Your task to perform on an android device: add a contact in the contacts app Image 0: 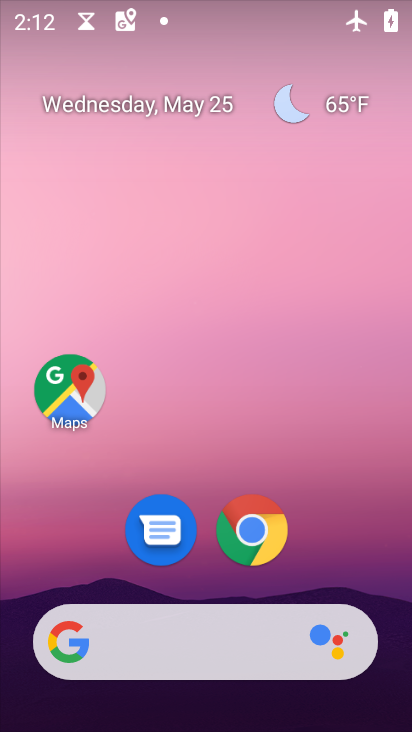
Step 0: drag from (291, 562) to (295, 248)
Your task to perform on an android device: add a contact in the contacts app Image 1: 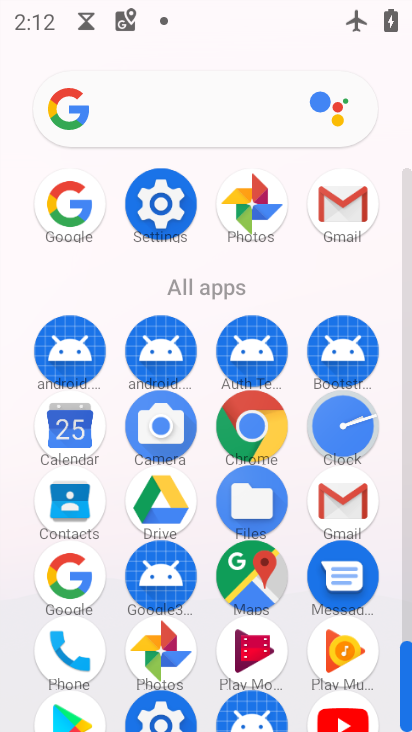
Step 1: click (73, 648)
Your task to perform on an android device: add a contact in the contacts app Image 2: 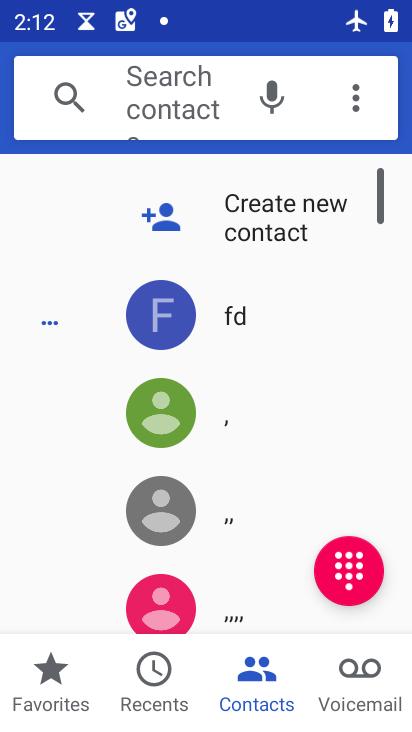
Step 2: click (230, 194)
Your task to perform on an android device: add a contact in the contacts app Image 3: 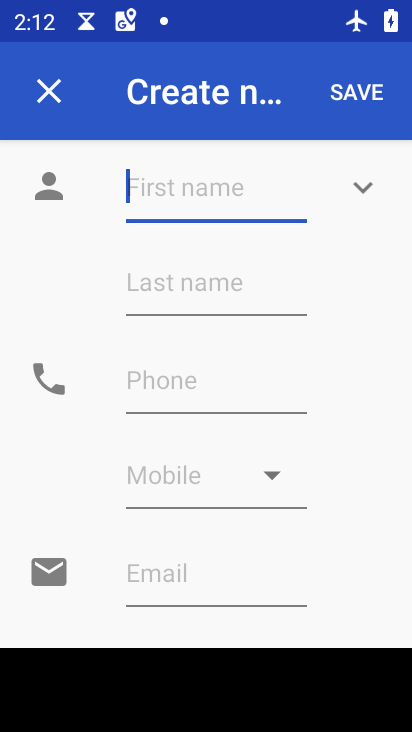
Step 3: click (200, 210)
Your task to perform on an android device: add a contact in the contacts app Image 4: 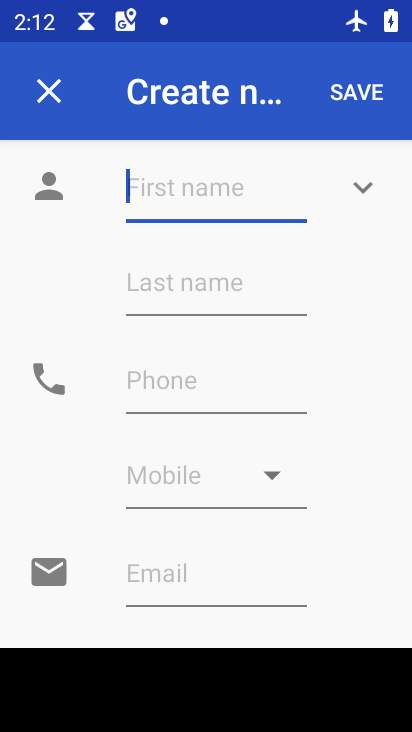
Step 4: type "kakakakakka"
Your task to perform on an android device: add a contact in the contacts app Image 5: 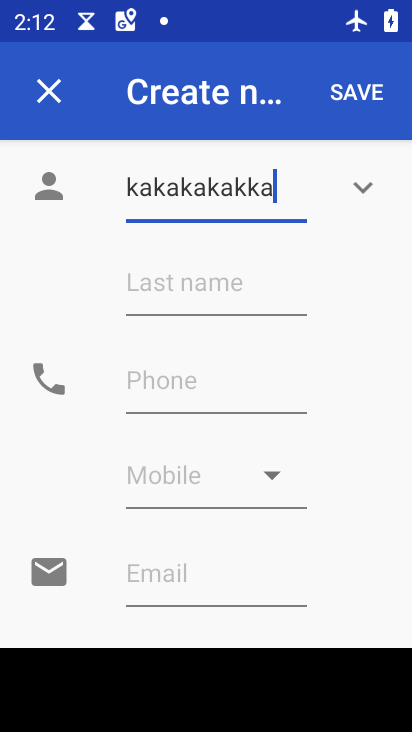
Step 5: click (227, 365)
Your task to perform on an android device: add a contact in the contacts app Image 6: 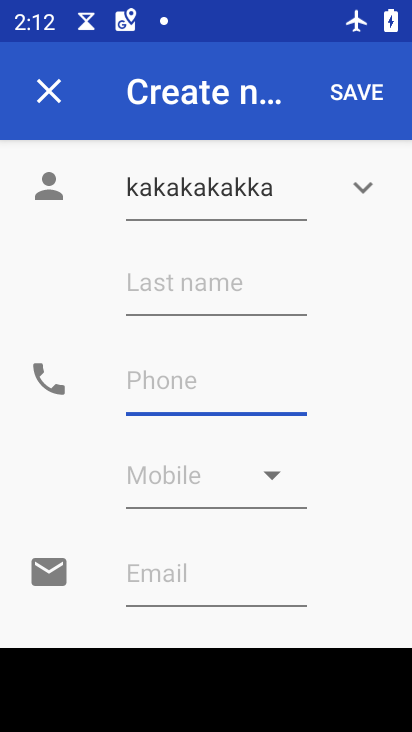
Step 6: type "1234567890"
Your task to perform on an android device: add a contact in the contacts app Image 7: 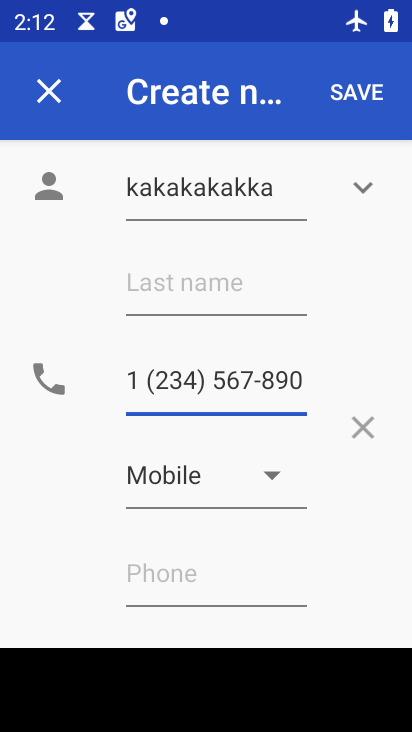
Step 7: click (355, 100)
Your task to perform on an android device: add a contact in the contacts app Image 8: 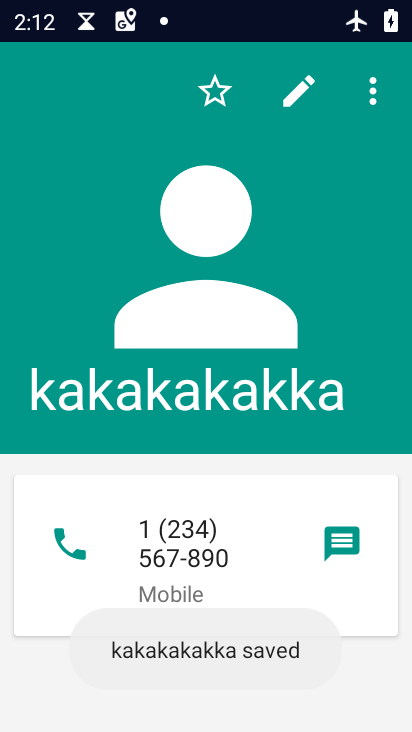
Step 8: task complete